Your task to perform on an android device: Search for pizza restaurants on Maps Image 0: 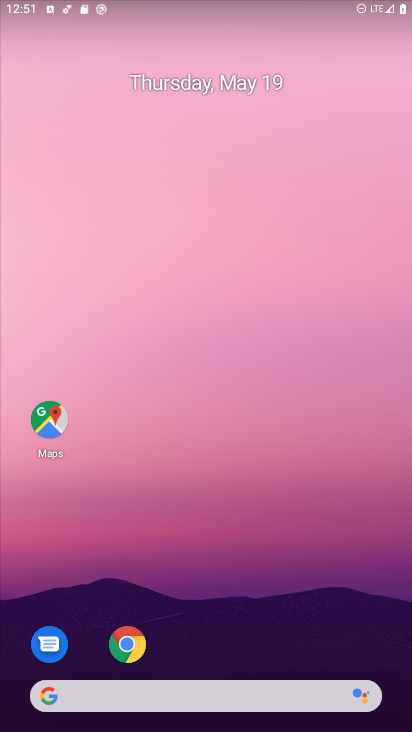
Step 0: drag from (375, 638) to (236, 86)
Your task to perform on an android device: Search for pizza restaurants on Maps Image 1: 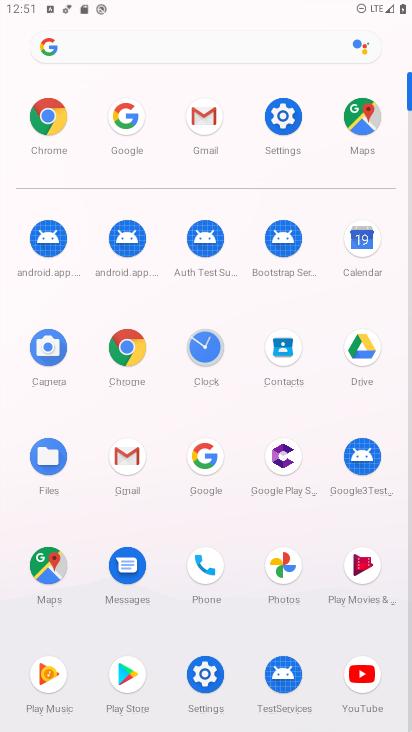
Step 1: click (59, 558)
Your task to perform on an android device: Search for pizza restaurants on Maps Image 2: 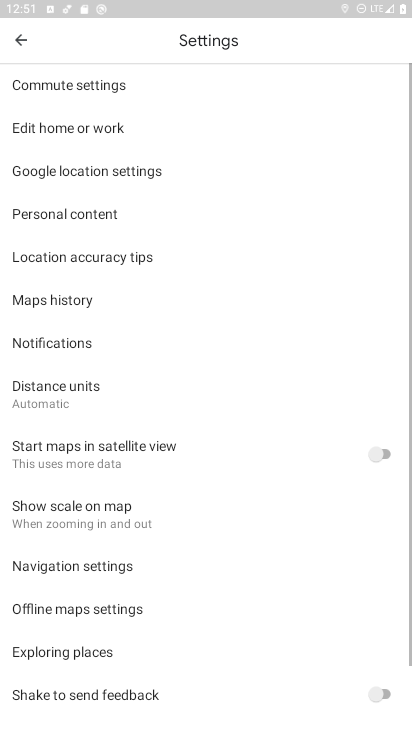
Step 2: press back button
Your task to perform on an android device: Search for pizza restaurants on Maps Image 3: 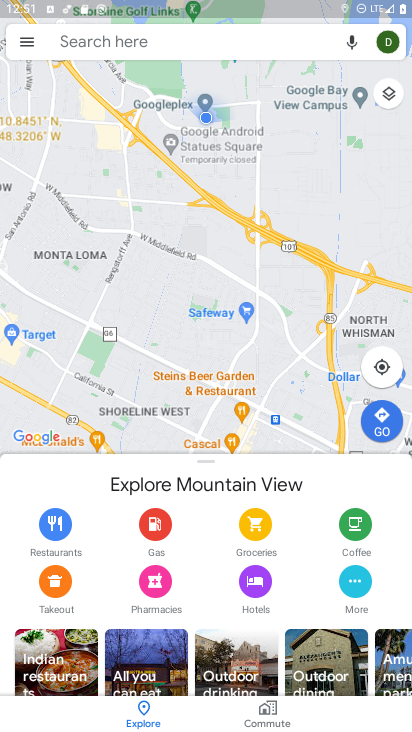
Step 3: click (120, 38)
Your task to perform on an android device: Search for pizza restaurants on Maps Image 4: 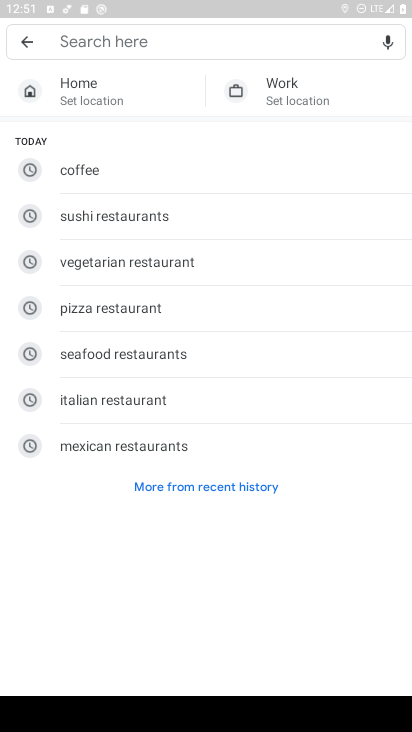
Step 4: click (153, 321)
Your task to perform on an android device: Search for pizza restaurants on Maps Image 5: 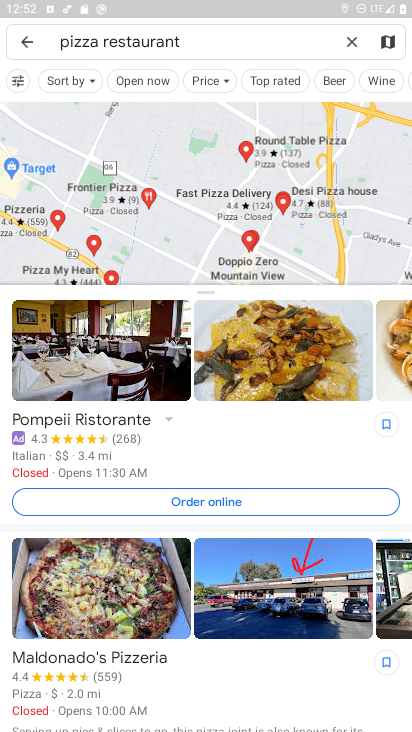
Step 5: task complete